Your task to perform on an android device: see creations saved in the google photos Image 0: 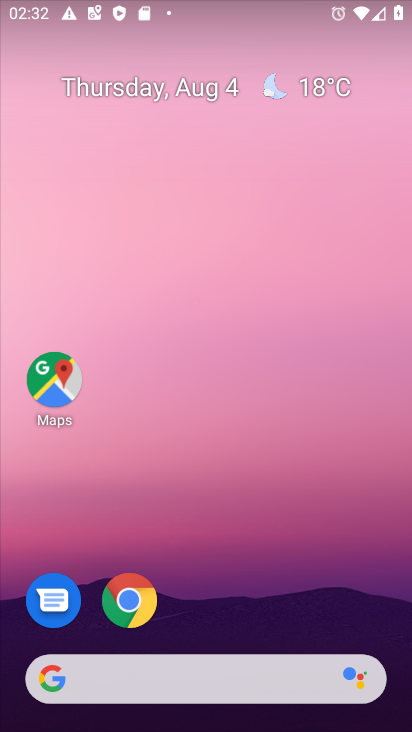
Step 0: press home button
Your task to perform on an android device: see creations saved in the google photos Image 1: 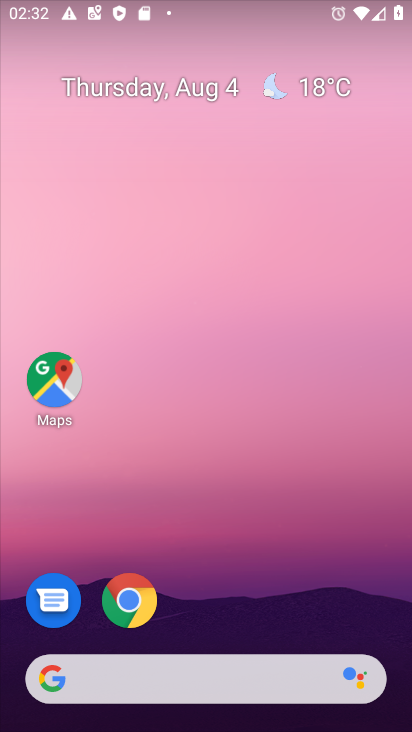
Step 1: drag from (166, 681) to (350, 179)
Your task to perform on an android device: see creations saved in the google photos Image 2: 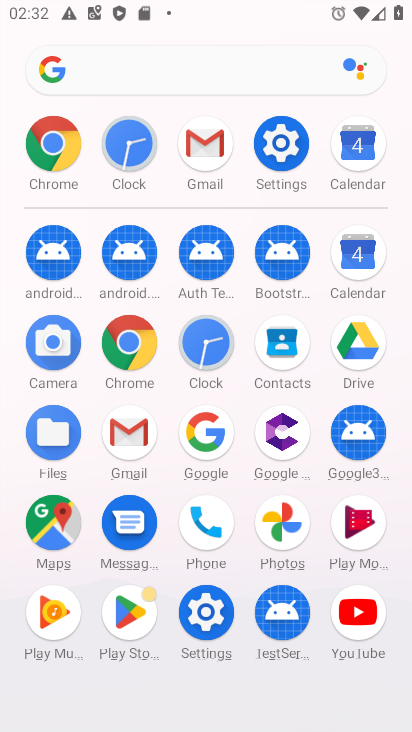
Step 2: click (283, 529)
Your task to perform on an android device: see creations saved in the google photos Image 3: 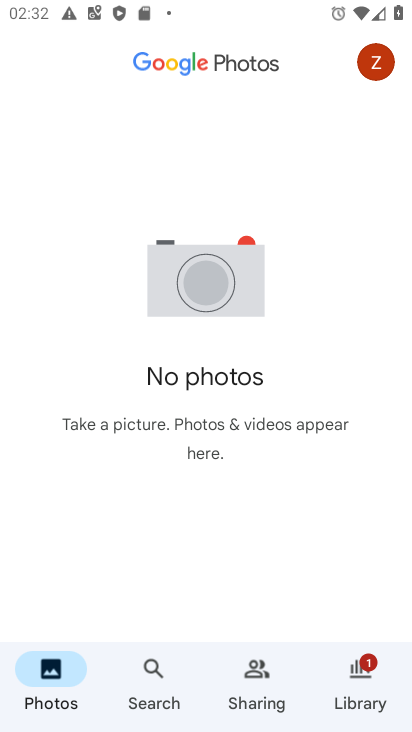
Step 3: click (163, 694)
Your task to perform on an android device: see creations saved in the google photos Image 4: 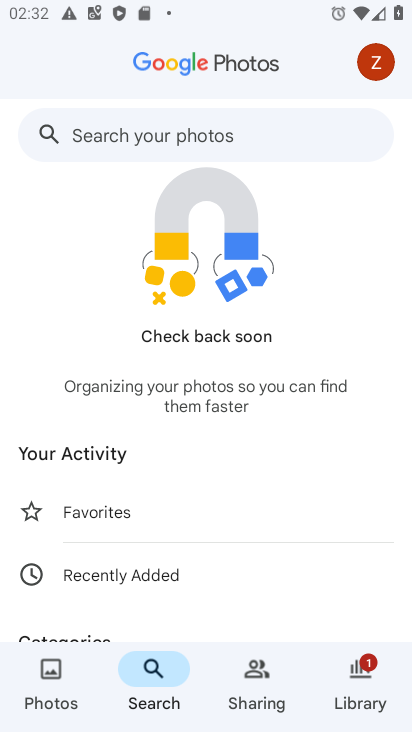
Step 4: drag from (163, 499) to (275, 92)
Your task to perform on an android device: see creations saved in the google photos Image 5: 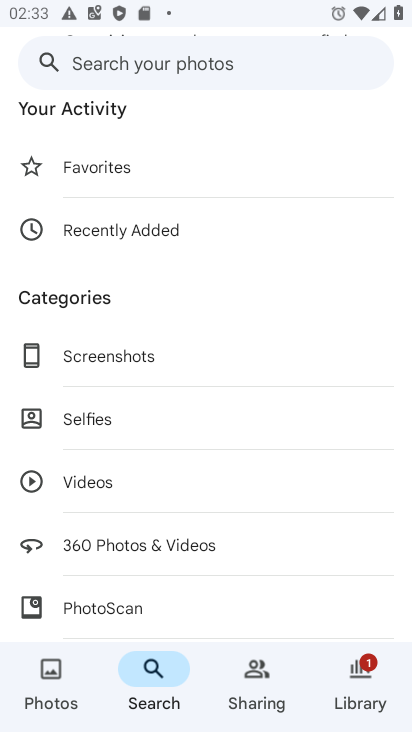
Step 5: drag from (243, 548) to (336, 182)
Your task to perform on an android device: see creations saved in the google photos Image 6: 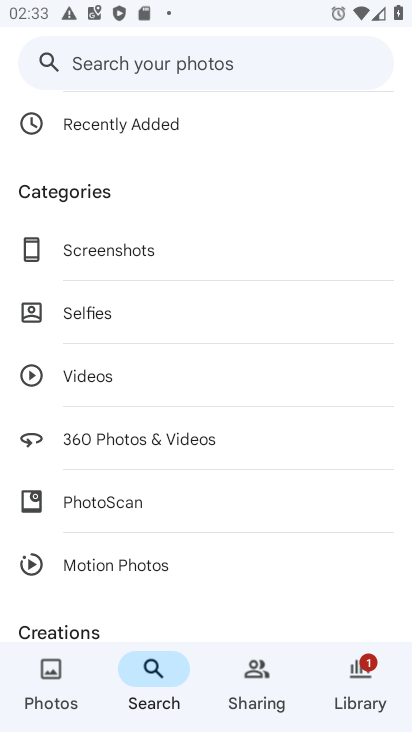
Step 6: drag from (226, 590) to (317, 274)
Your task to perform on an android device: see creations saved in the google photos Image 7: 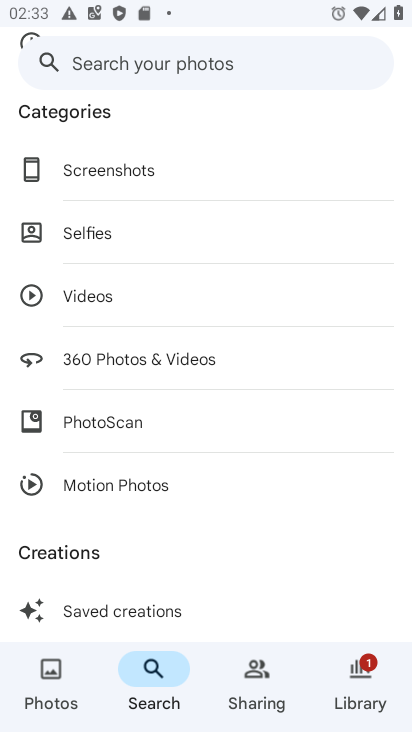
Step 7: click (118, 610)
Your task to perform on an android device: see creations saved in the google photos Image 8: 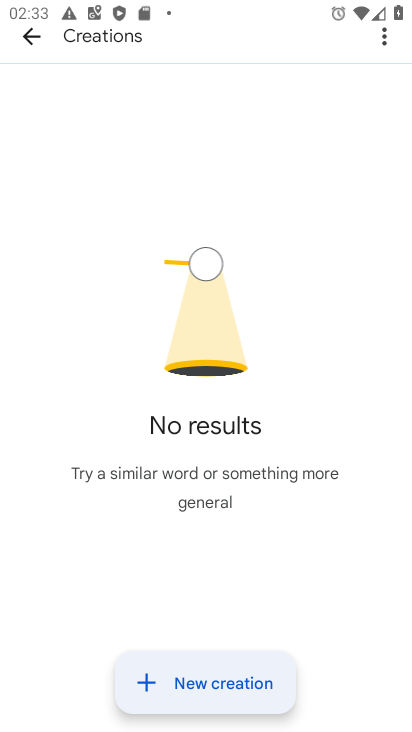
Step 8: task complete